Your task to perform on an android device: turn on notifications settings in the gmail app Image 0: 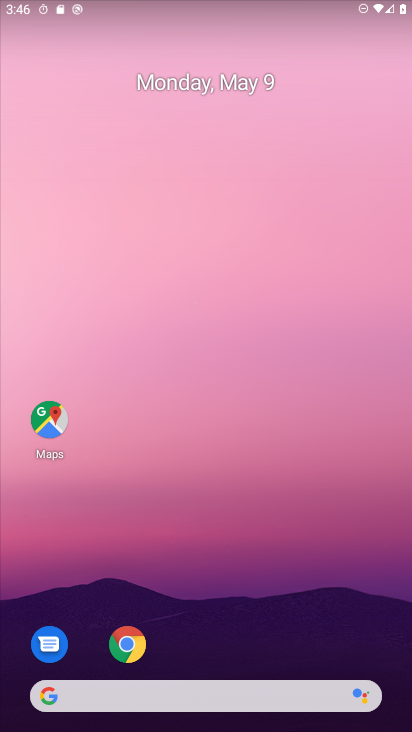
Step 0: drag from (195, 621) to (248, 3)
Your task to perform on an android device: turn on notifications settings in the gmail app Image 1: 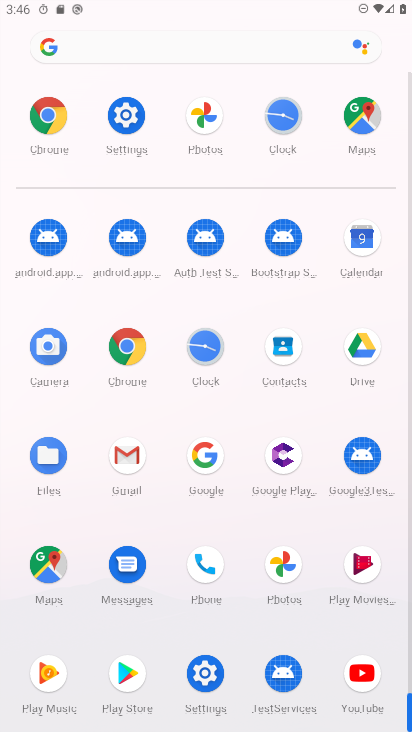
Step 1: click (120, 499)
Your task to perform on an android device: turn on notifications settings in the gmail app Image 2: 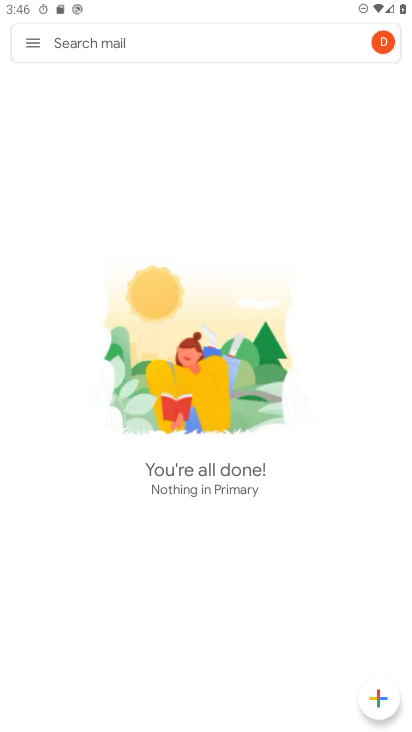
Step 2: click (30, 38)
Your task to perform on an android device: turn on notifications settings in the gmail app Image 3: 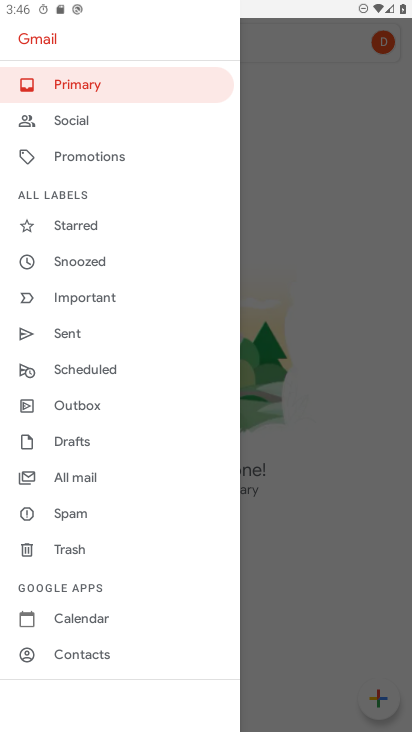
Step 3: drag from (92, 599) to (153, 243)
Your task to perform on an android device: turn on notifications settings in the gmail app Image 4: 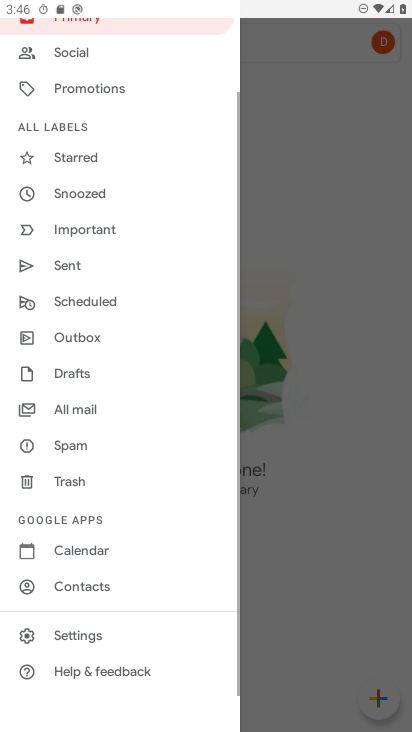
Step 4: click (102, 638)
Your task to perform on an android device: turn on notifications settings in the gmail app Image 5: 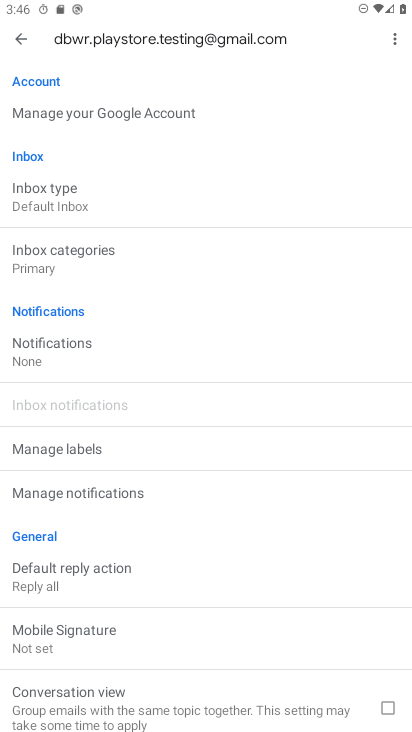
Step 5: click (70, 342)
Your task to perform on an android device: turn on notifications settings in the gmail app Image 6: 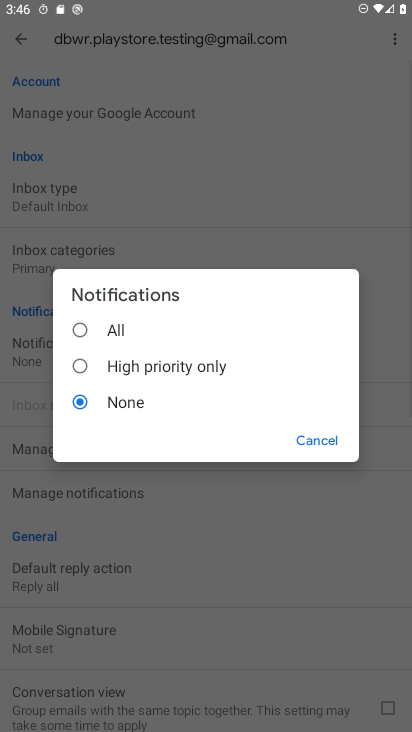
Step 6: click (71, 335)
Your task to perform on an android device: turn on notifications settings in the gmail app Image 7: 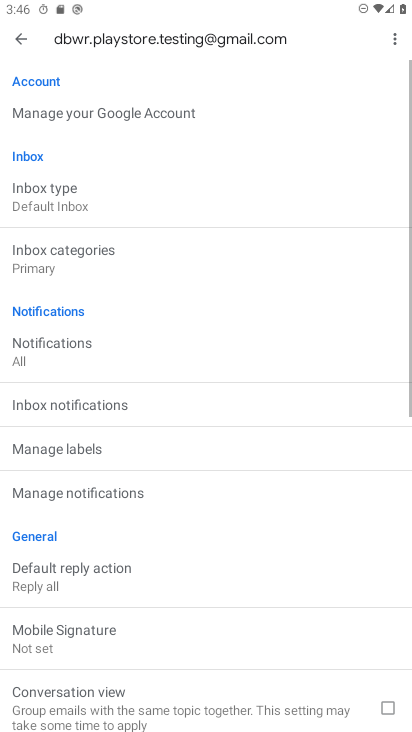
Step 7: task complete